Your task to perform on an android device: Is it going to rain this weekend? Image 0: 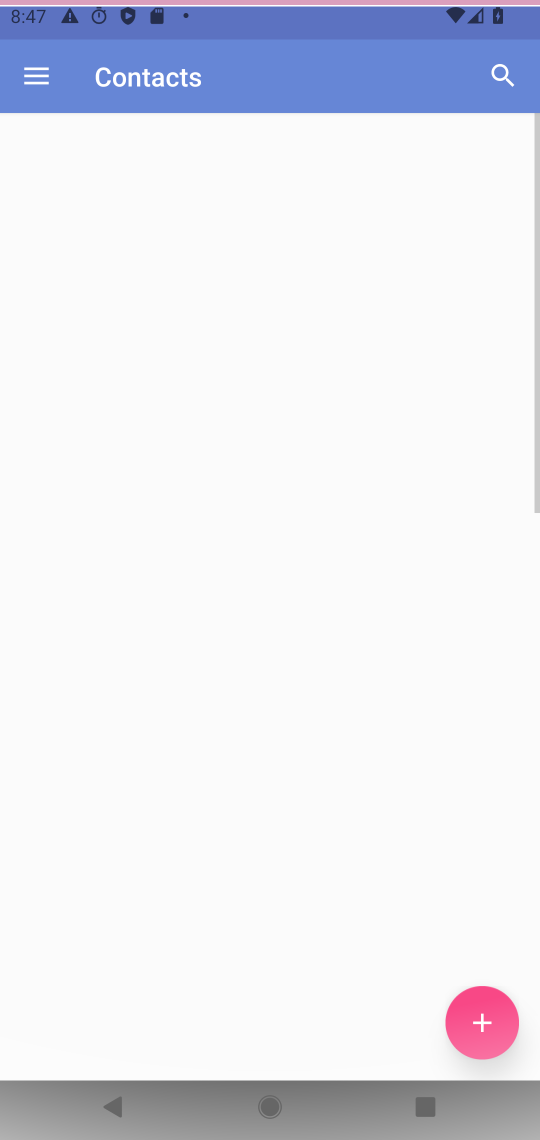
Step 0: press home button
Your task to perform on an android device: Is it going to rain this weekend? Image 1: 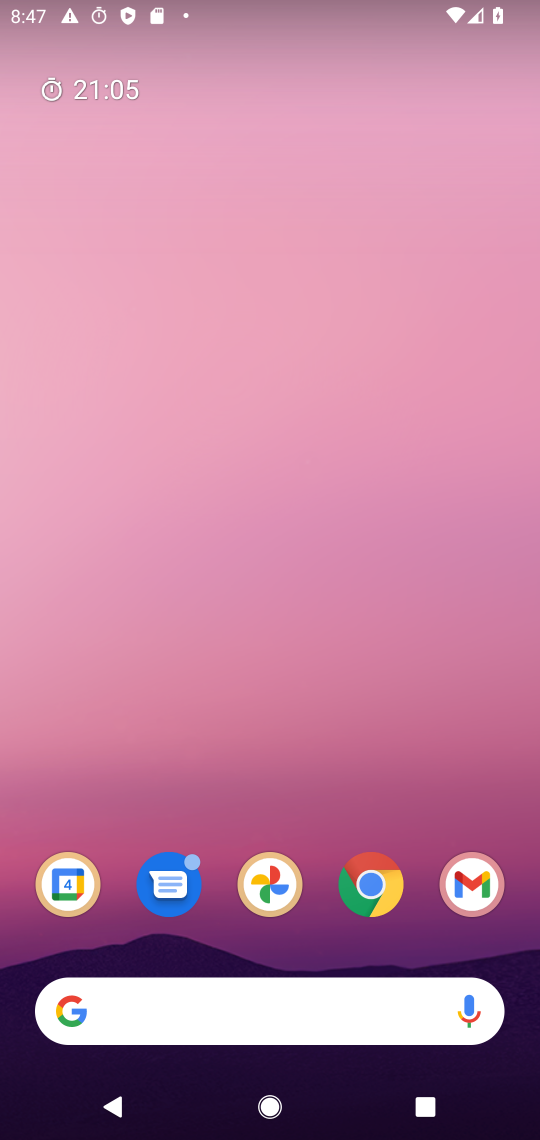
Step 1: click (56, 1022)
Your task to perform on an android device: Is it going to rain this weekend? Image 2: 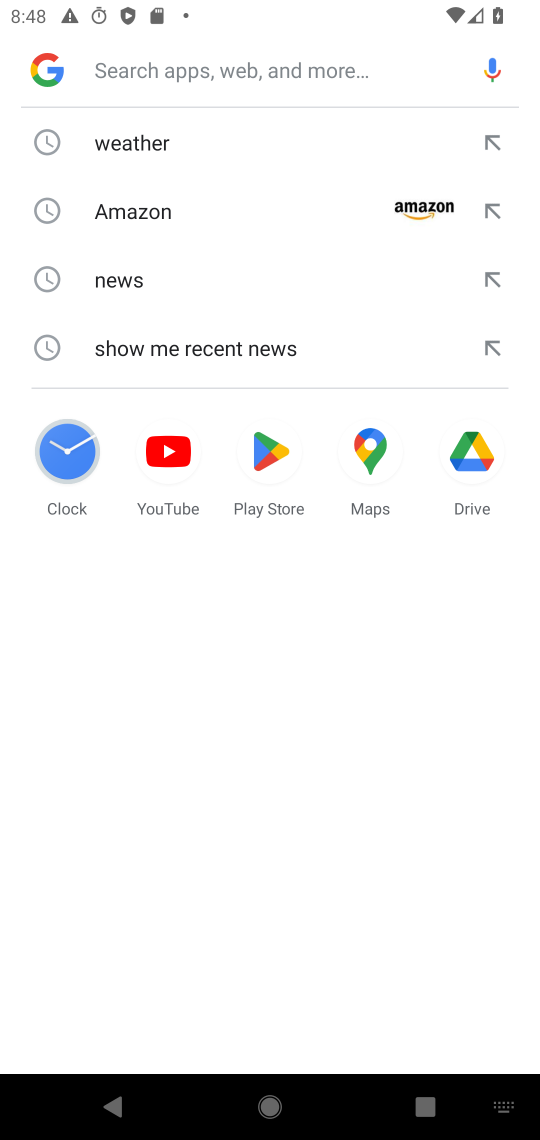
Step 2: type "rain this weekend?"
Your task to perform on an android device: Is it going to rain this weekend? Image 3: 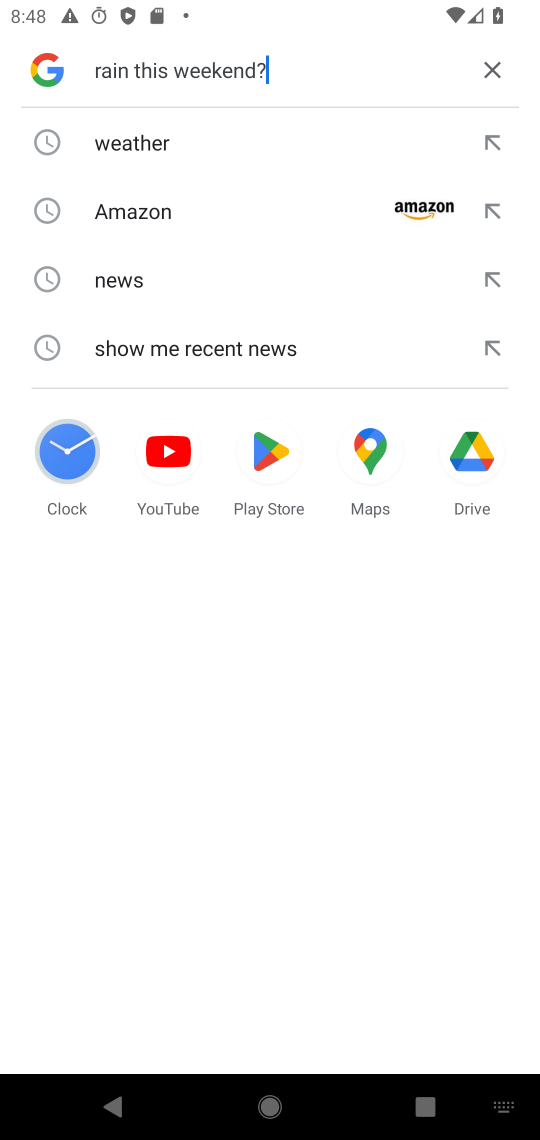
Step 3: press enter
Your task to perform on an android device: Is it going to rain this weekend? Image 4: 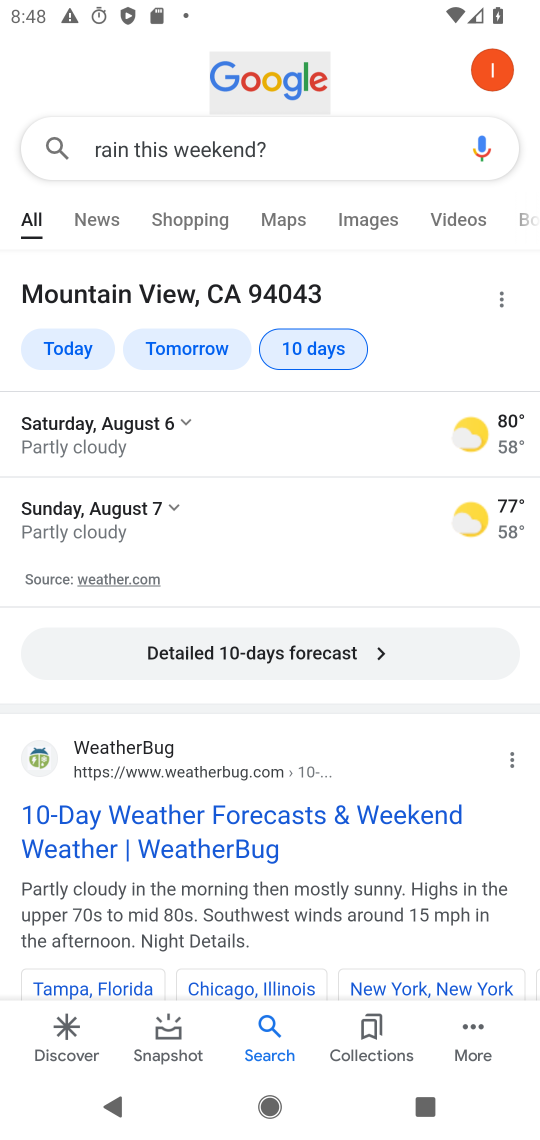
Step 4: task complete